Your task to perform on an android device: Open the Play Movies app and select the watchlist tab. Image 0: 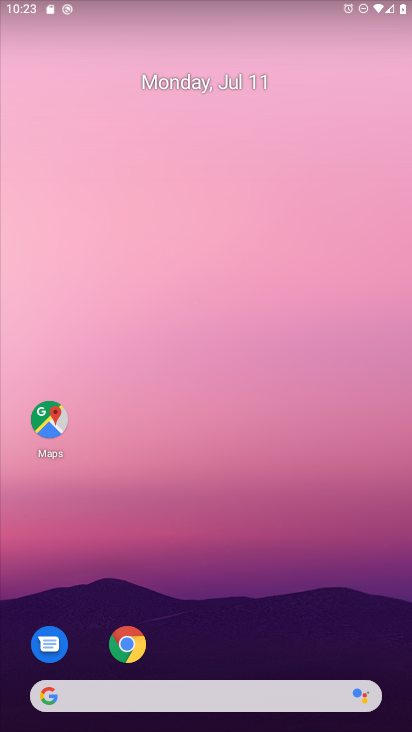
Step 0: drag from (133, 361) to (133, 299)
Your task to perform on an android device: Open the Play Movies app and select the watchlist tab. Image 1: 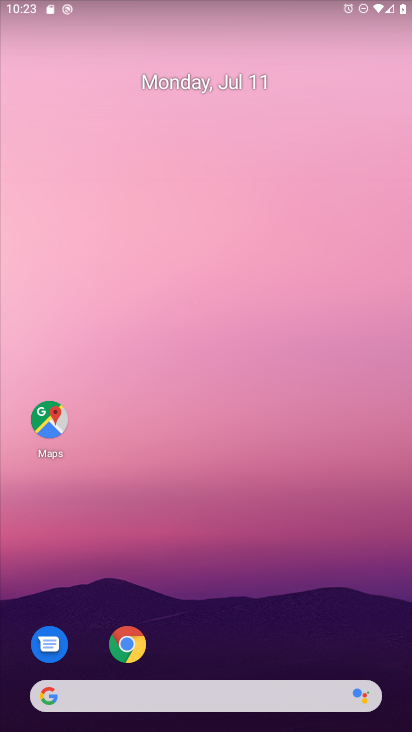
Step 1: click (253, 178)
Your task to perform on an android device: Open the Play Movies app and select the watchlist tab. Image 2: 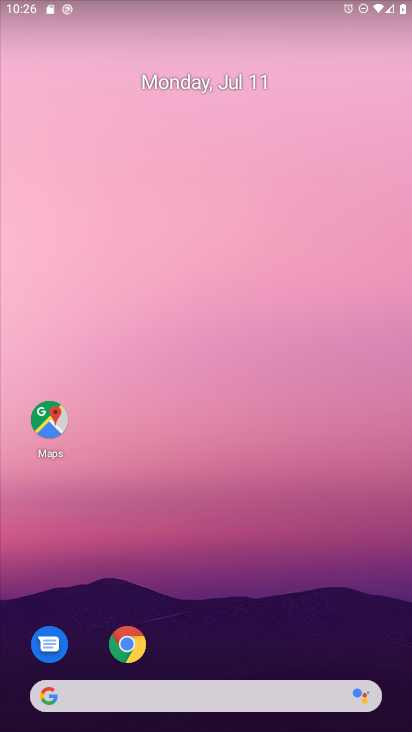
Step 2: drag from (246, 683) to (173, 227)
Your task to perform on an android device: Open the Play Movies app and select the watchlist tab. Image 3: 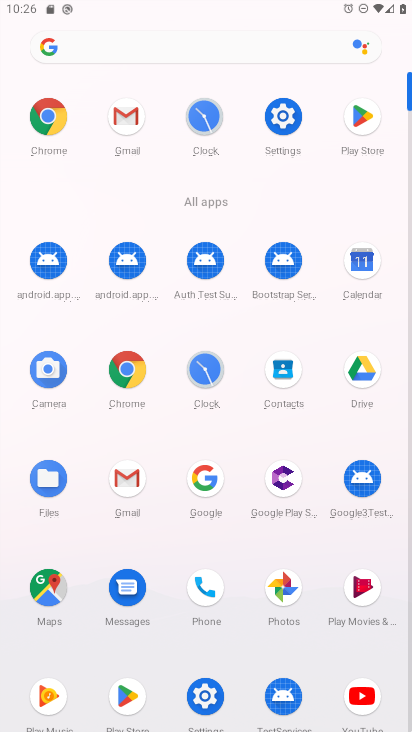
Step 3: click (352, 583)
Your task to perform on an android device: Open the Play Movies app and select the watchlist tab. Image 4: 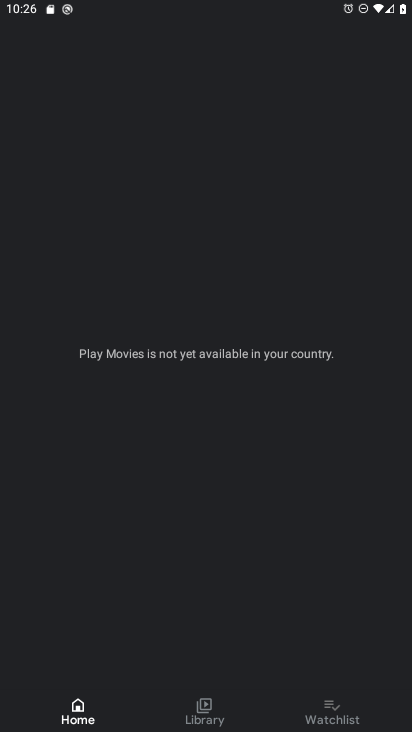
Step 4: click (340, 713)
Your task to perform on an android device: Open the Play Movies app and select the watchlist tab. Image 5: 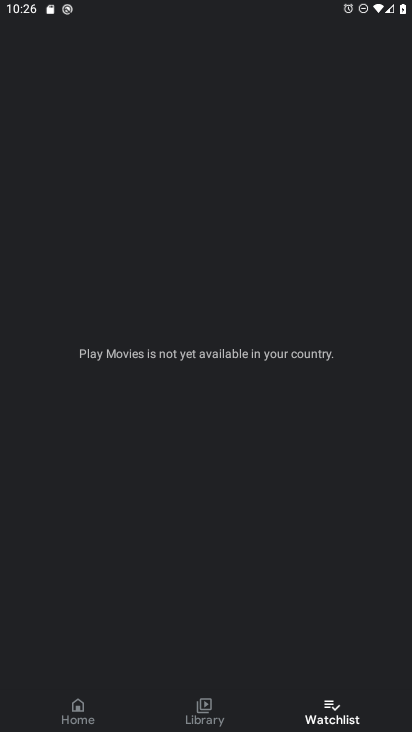
Step 5: task complete